Your task to perform on an android device: Open accessibility settings Image 0: 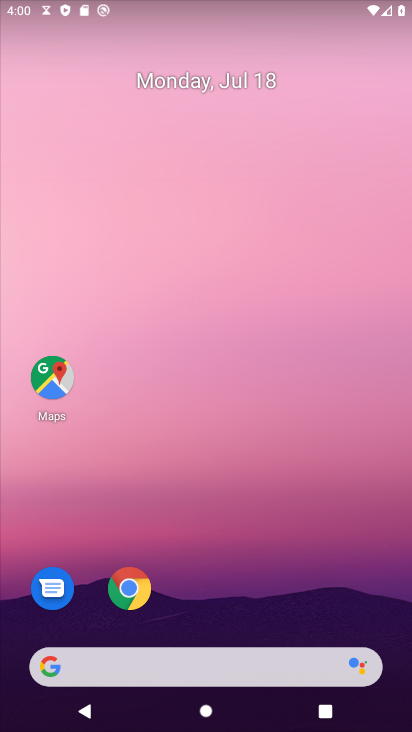
Step 0: drag from (132, 448) to (215, 125)
Your task to perform on an android device: Open accessibility settings Image 1: 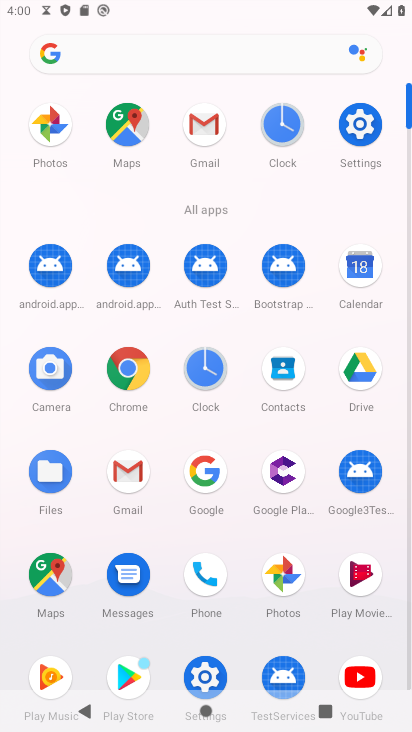
Step 1: click (137, 666)
Your task to perform on an android device: Open accessibility settings Image 2: 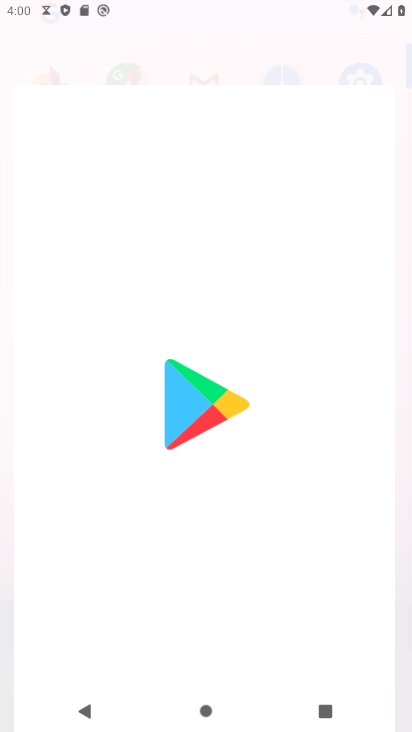
Step 2: click (194, 672)
Your task to perform on an android device: Open accessibility settings Image 3: 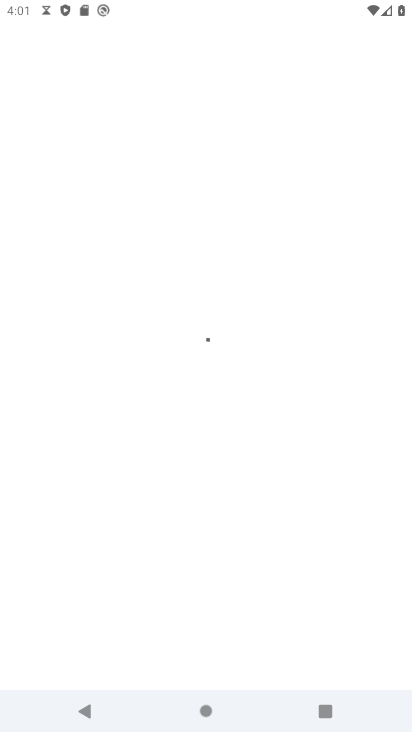
Step 3: press home button
Your task to perform on an android device: Open accessibility settings Image 4: 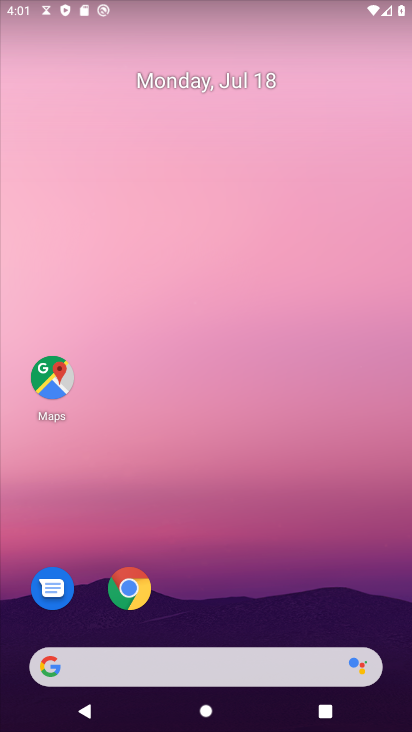
Step 4: drag from (52, 683) to (345, 129)
Your task to perform on an android device: Open accessibility settings Image 5: 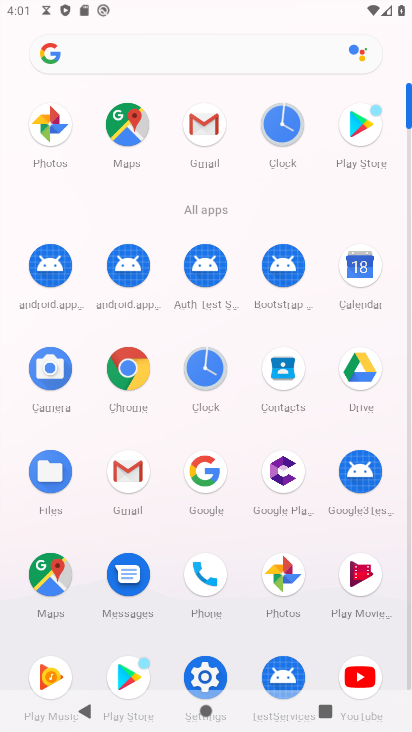
Step 5: click (212, 675)
Your task to perform on an android device: Open accessibility settings Image 6: 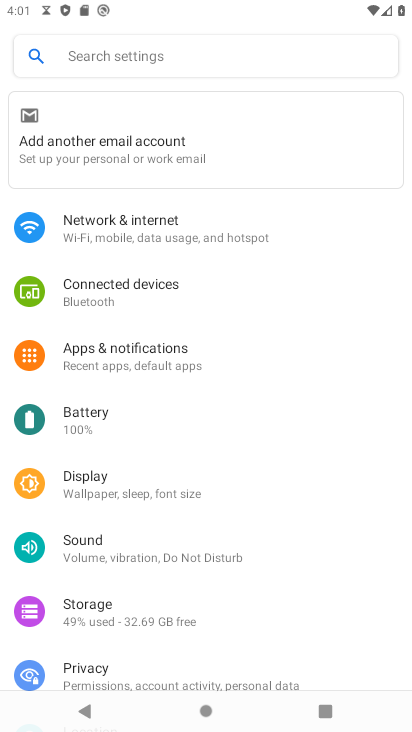
Step 6: drag from (280, 572) to (268, 234)
Your task to perform on an android device: Open accessibility settings Image 7: 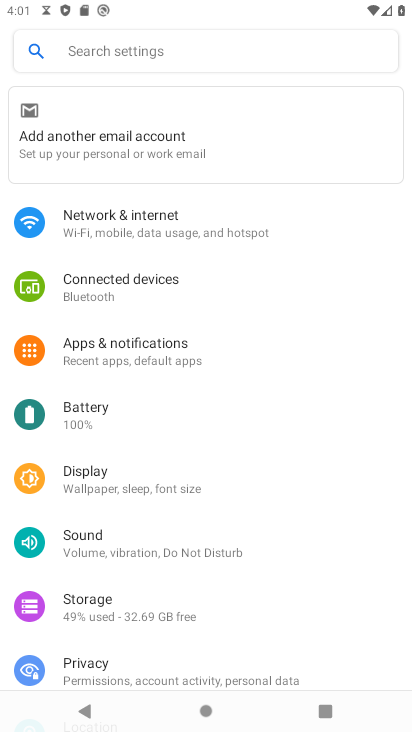
Step 7: drag from (285, 656) to (332, 387)
Your task to perform on an android device: Open accessibility settings Image 8: 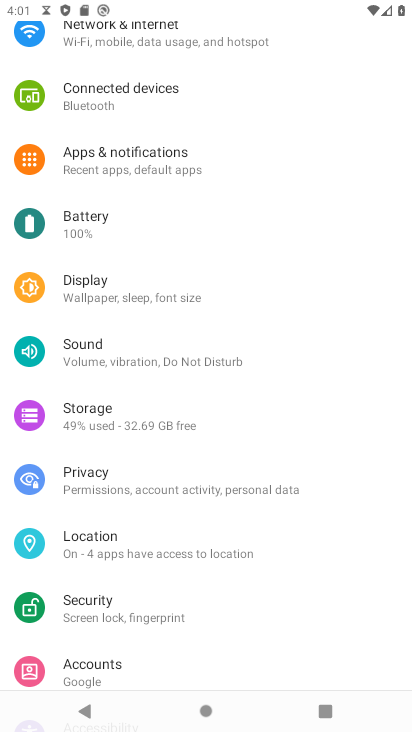
Step 8: drag from (279, 633) to (343, 263)
Your task to perform on an android device: Open accessibility settings Image 9: 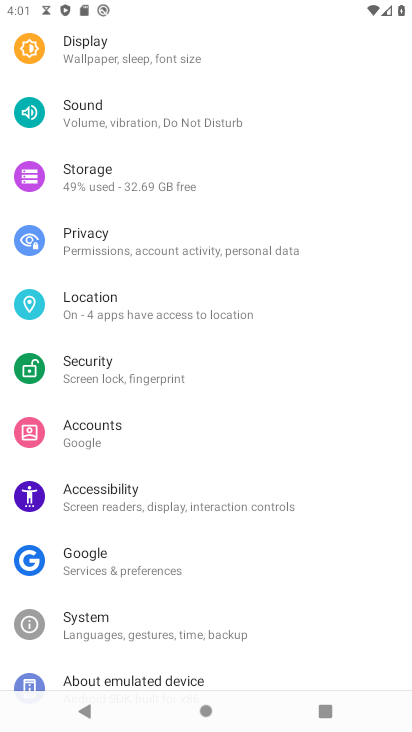
Step 9: click (147, 487)
Your task to perform on an android device: Open accessibility settings Image 10: 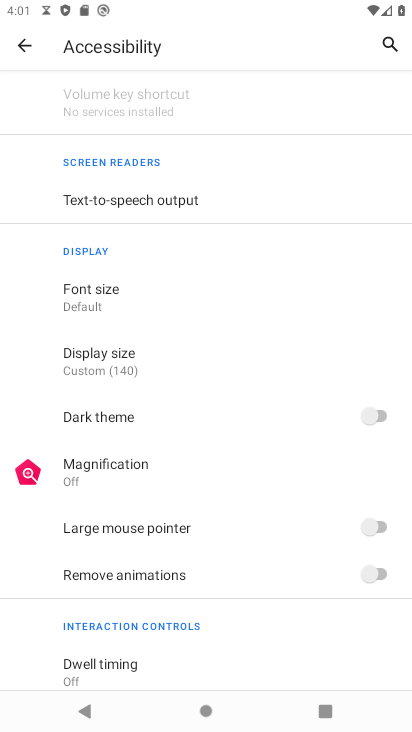
Step 10: task complete